Your task to perform on an android device: Open internet settings Image 0: 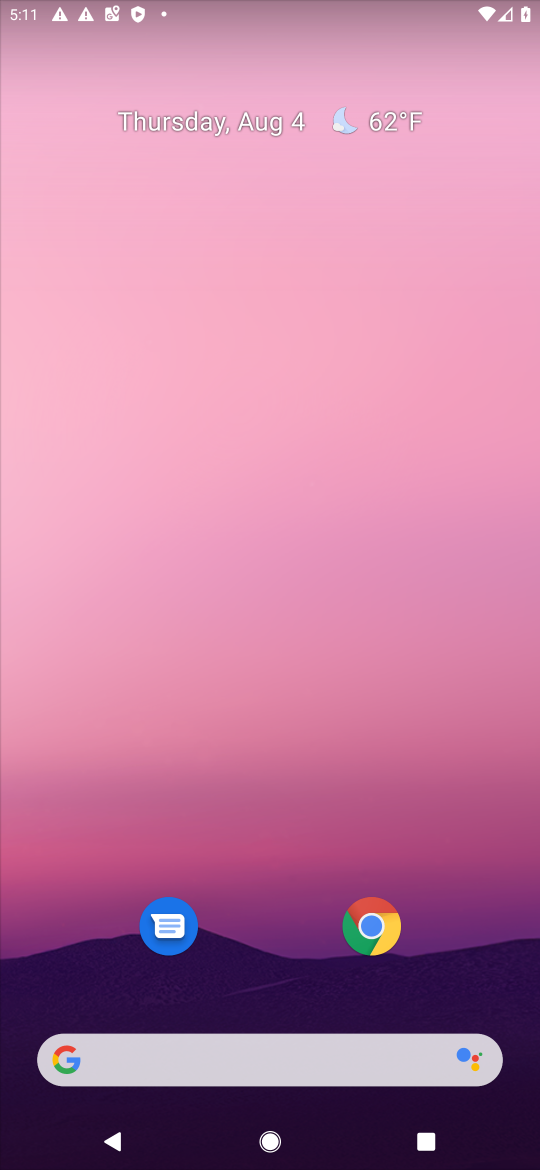
Step 0: drag from (254, 979) to (439, 304)
Your task to perform on an android device: Open internet settings Image 1: 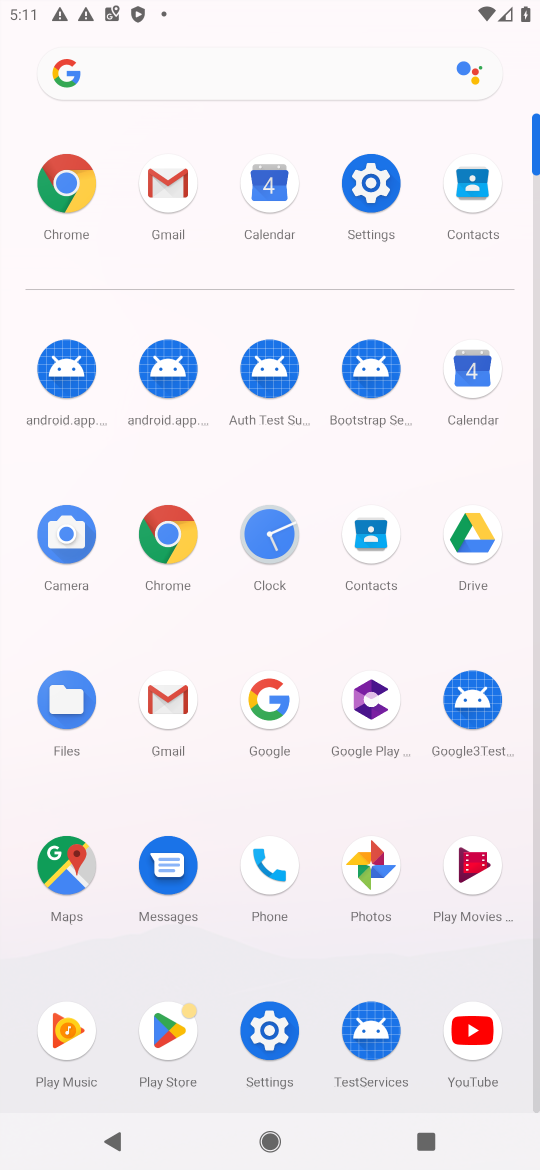
Step 1: click (385, 206)
Your task to perform on an android device: Open internet settings Image 2: 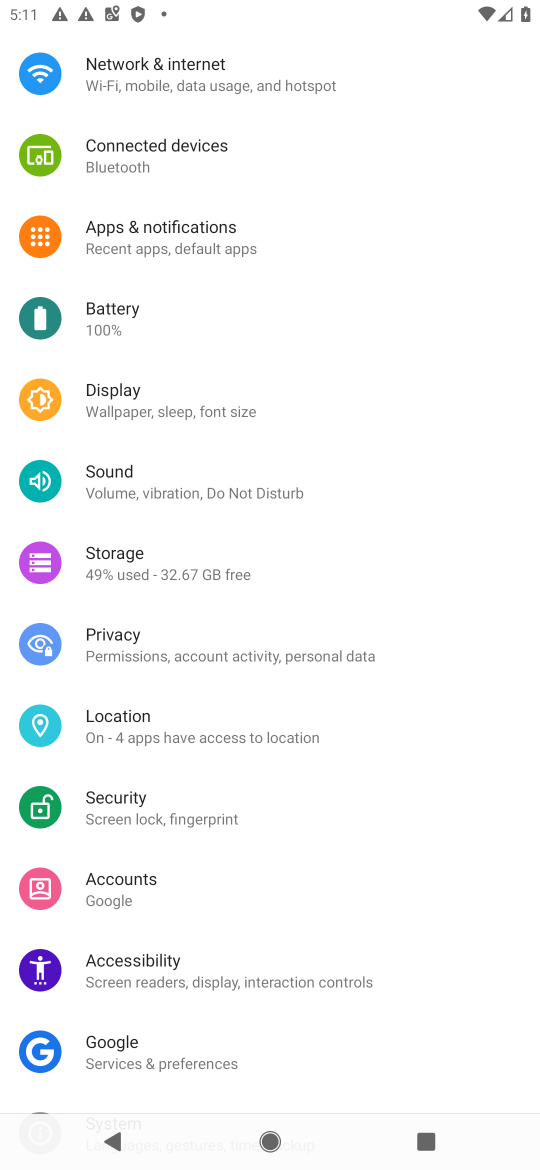
Step 2: click (171, 65)
Your task to perform on an android device: Open internet settings Image 3: 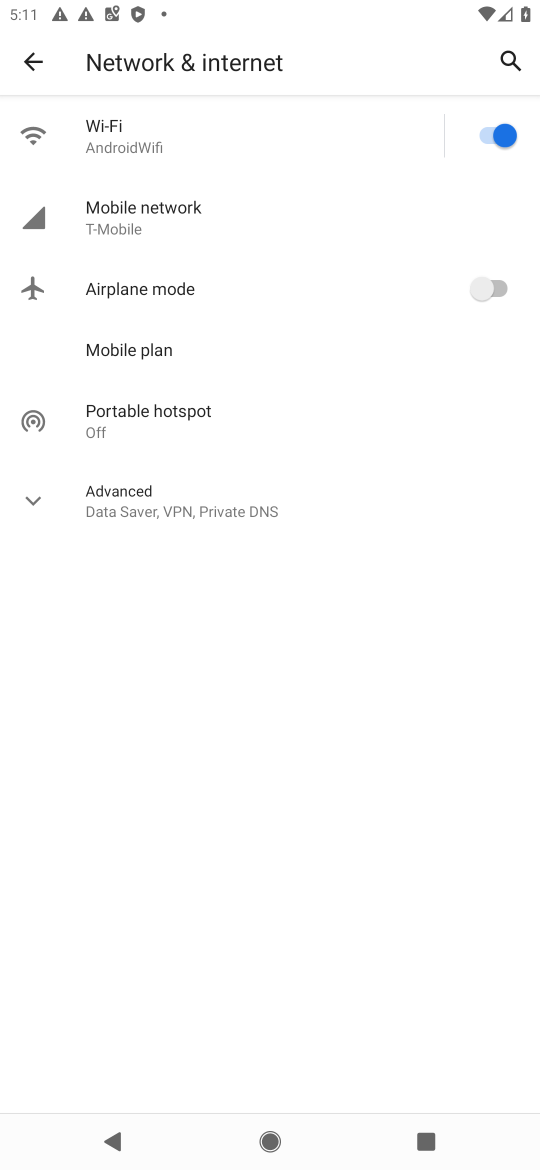
Step 3: task complete